Your task to perform on an android device: What's the weather today? Image 0: 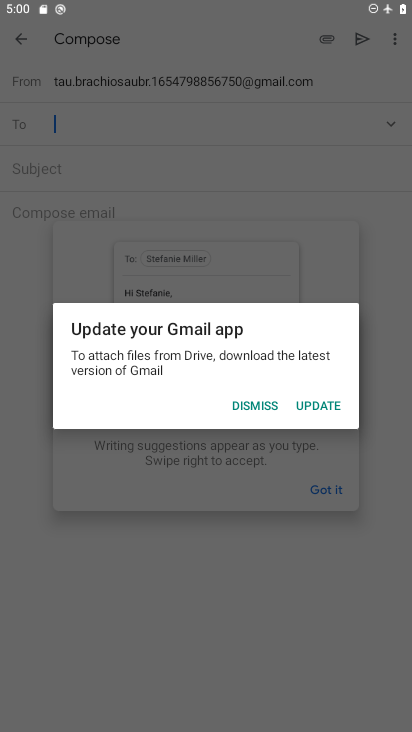
Step 0: press home button
Your task to perform on an android device: What's the weather today? Image 1: 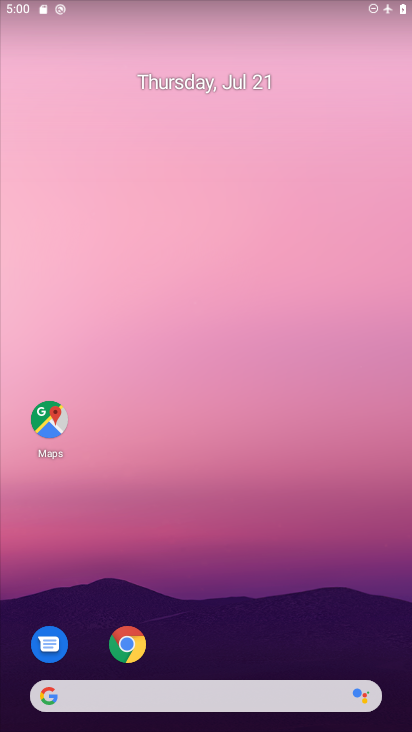
Step 1: click (34, 427)
Your task to perform on an android device: What's the weather today? Image 2: 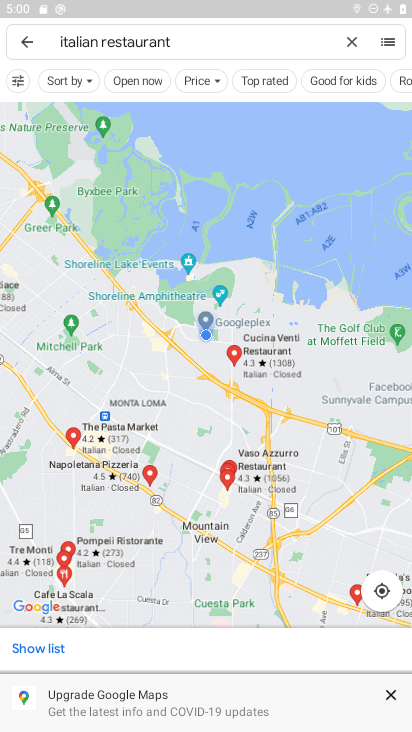
Step 2: click (346, 42)
Your task to perform on an android device: What's the weather today? Image 3: 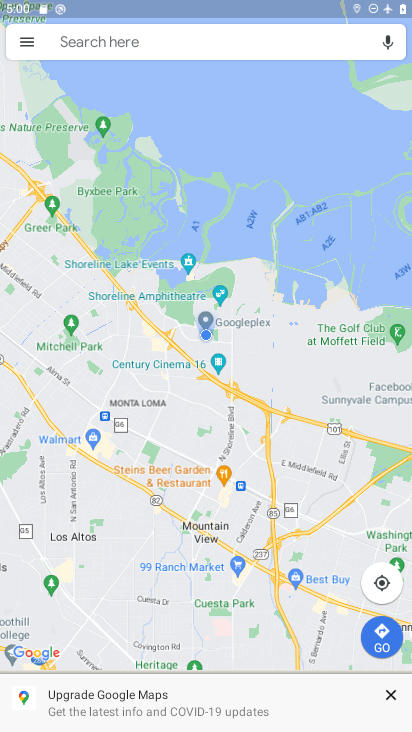
Step 3: press home button
Your task to perform on an android device: What's the weather today? Image 4: 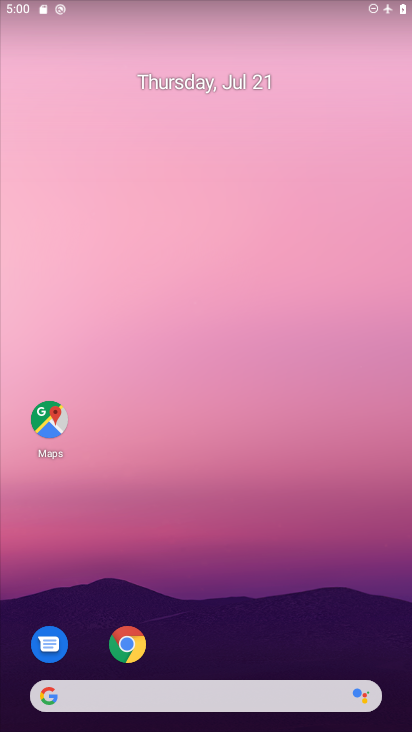
Step 4: click (174, 695)
Your task to perform on an android device: What's the weather today? Image 5: 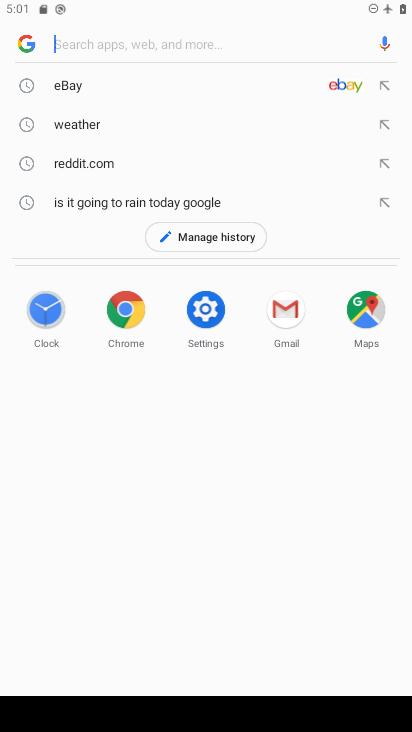
Step 5: click (78, 117)
Your task to perform on an android device: What's the weather today? Image 6: 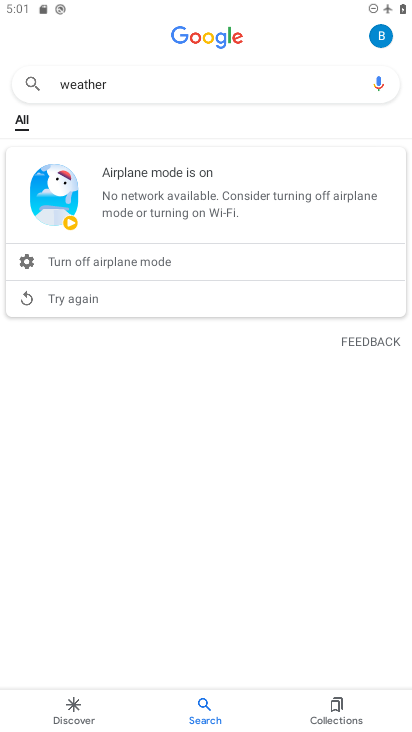
Step 6: task complete